Your task to perform on an android device: turn smart compose on in the gmail app Image 0: 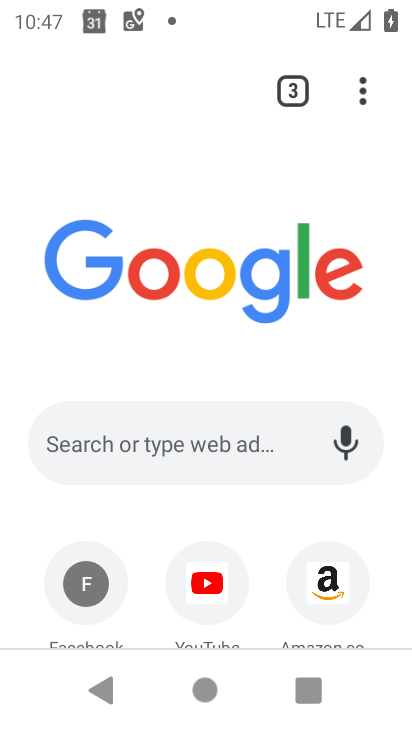
Step 0: press home button
Your task to perform on an android device: turn smart compose on in the gmail app Image 1: 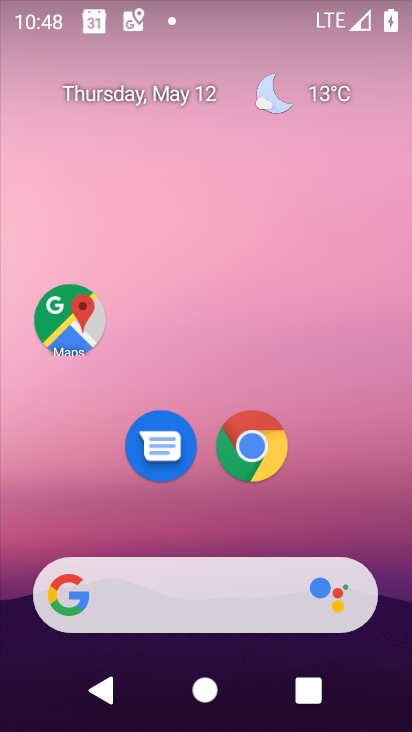
Step 1: drag from (251, 566) to (297, 23)
Your task to perform on an android device: turn smart compose on in the gmail app Image 2: 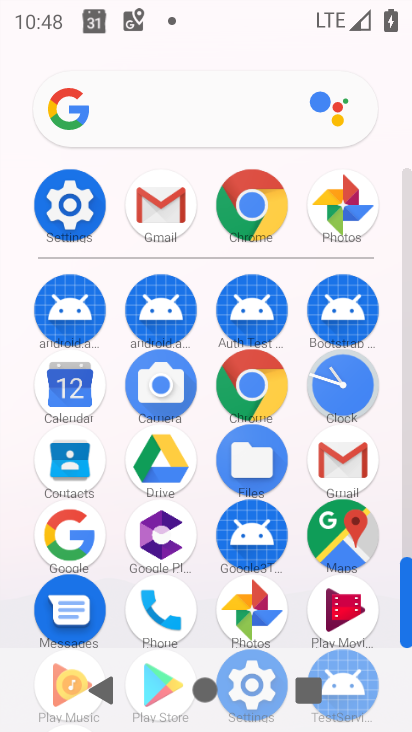
Step 2: click (355, 452)
Your task to perform on an android device: turn smart compose on in the gmail app Image 3: 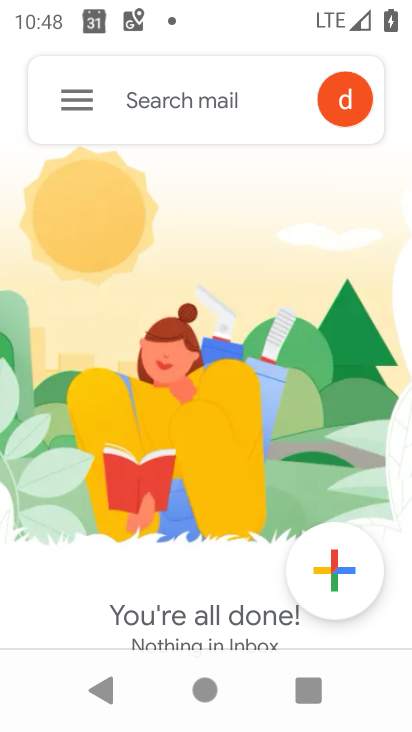
Step 3: click (77, 102)
Your task to perform on an android device: turn smart compose on in the gmail app Image 4: 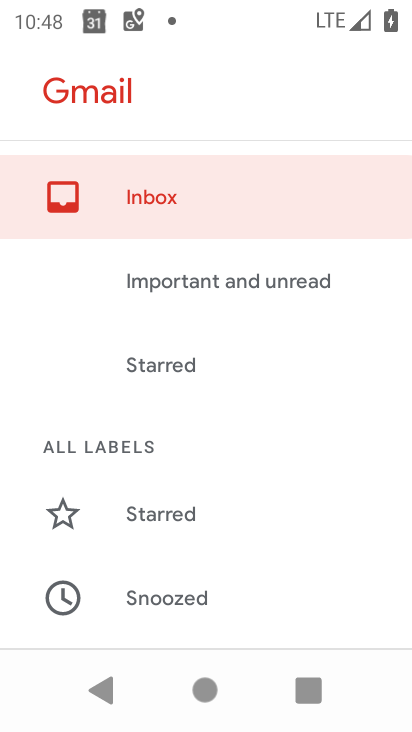
Step 4: drag from (206, 558) to (236, 94)
Your task to perform on an android device: turn smart compose on in the gmail app Image 5: 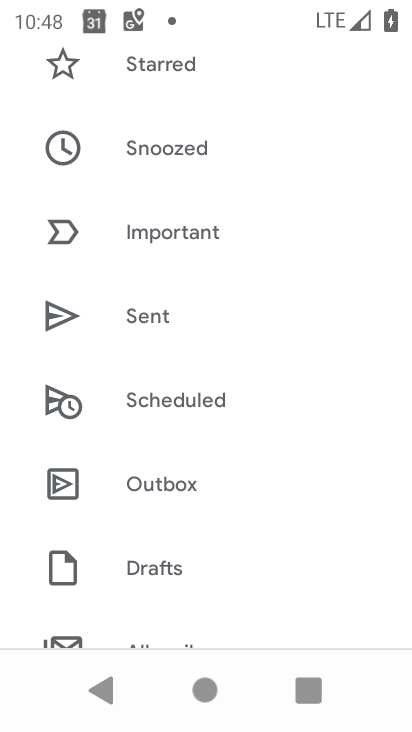
Step 5: drag from (281, 603) to (226, 213)
Your task to perform on an android device: turn smart compose on in the gmail app Image 6: 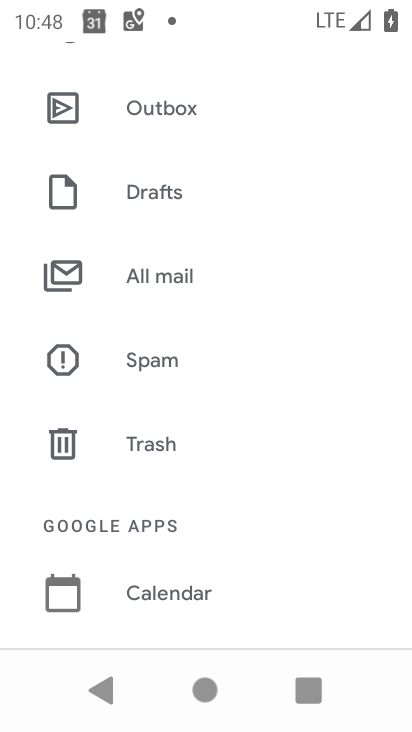
Step 6: drag from (277, 612) to (407, 477)
Your task to perform on an android device: turn smart compose on in the gmail app Image 7: 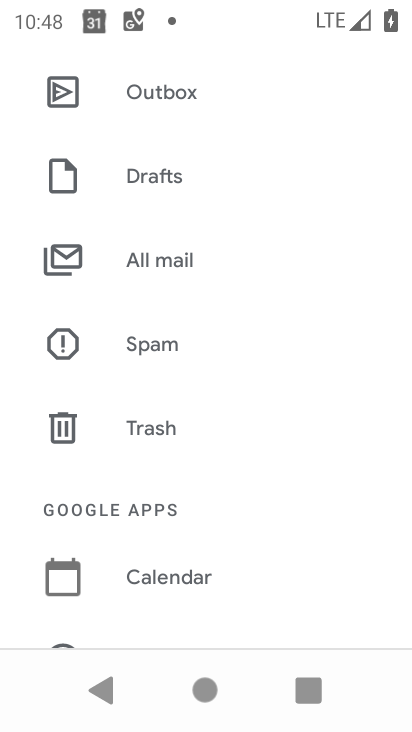
Step 7: click (197, 510)
Your task to perform on an android device: turn smart compose on in the gmail app Image 8: 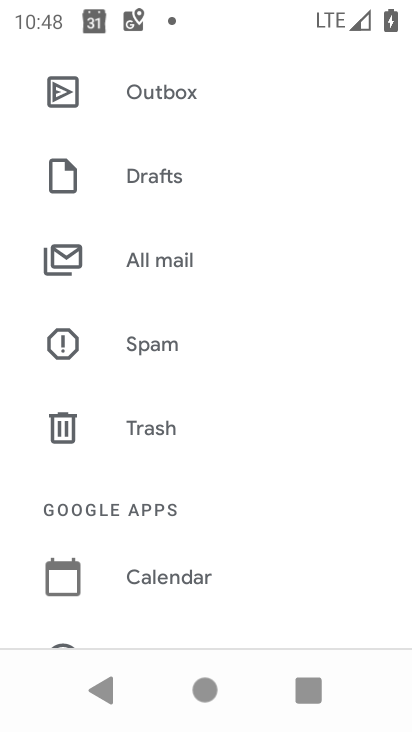
Step 8: drag from (308, 682) to (284, 261)
Your task to perform on an android device: turn smart compose on in the gmail app Image 9: 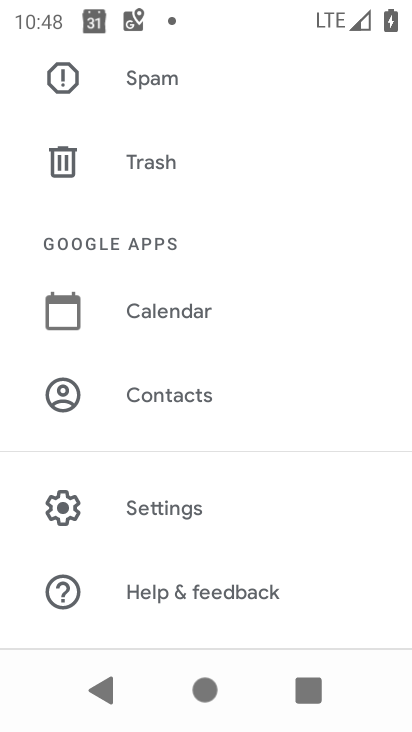
Step 9: click (213, 512)
Your task to perform on an android device: turn smart compose on in the gmail app Image 10: 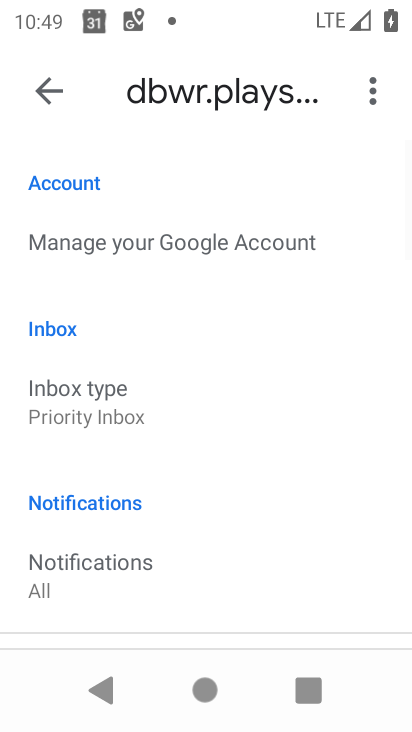
Step 10: task complete